Your task to perform on an android device: turn smart compose on in the gmail app Image 0: 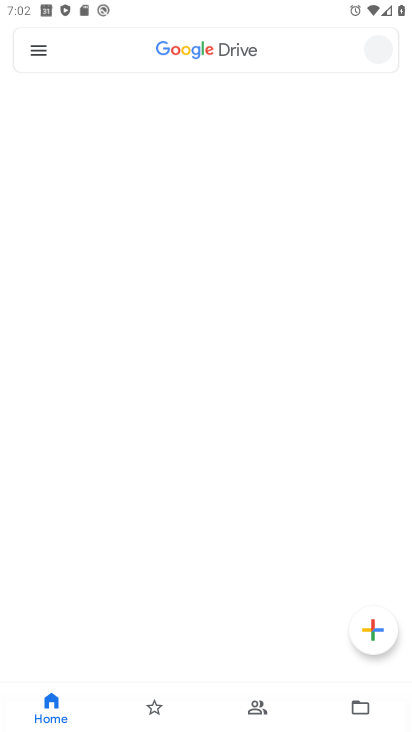
Step 0: drag from (315, 616) to (326, 58)
Your task to perform on an android device: turn smart compose on in the gmail app Image 1: 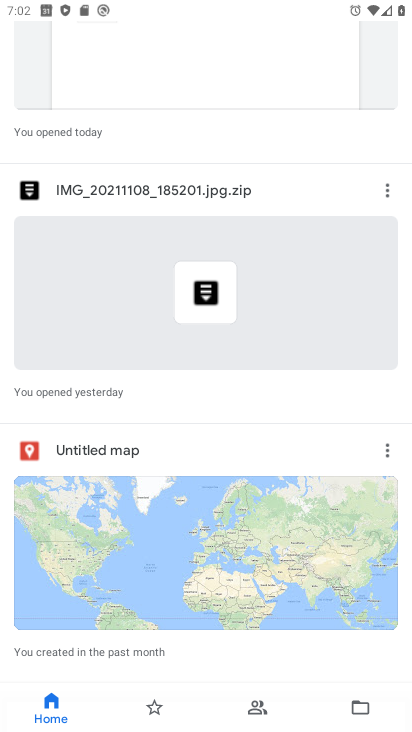
Step 1: press home button
Your task to perform on an android device: turn smart compose on in the gmail app Image 2: 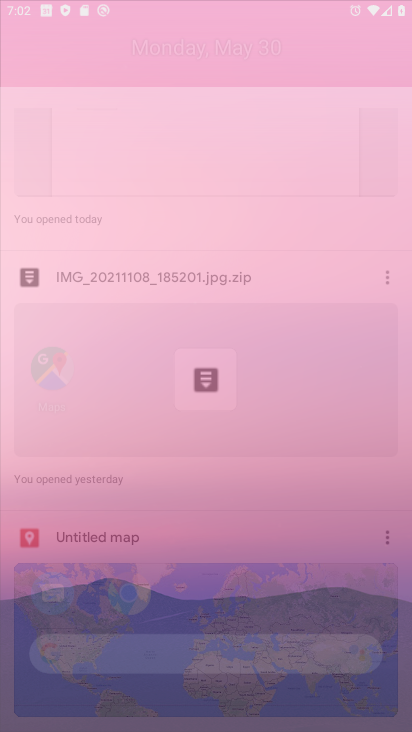
Step 2: drag from (322, 632) to (220, 2)
Your task to perform on an android device: turn smart compose on in the gmail app Image 3: 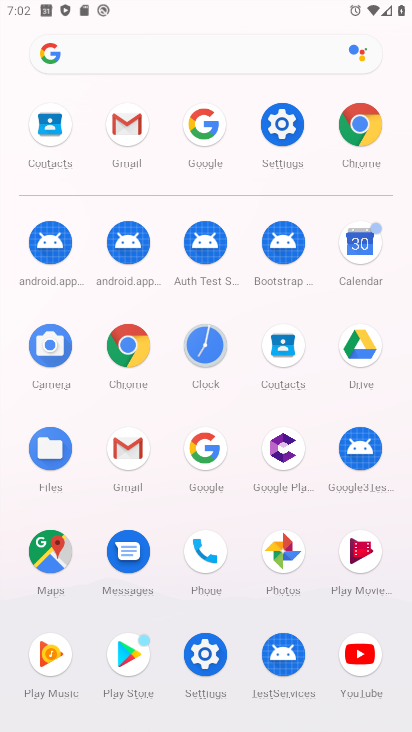
Step 3: click (128, 448)
Your task to perform on an android device: turn smart compose on in the gmail app Image 4: 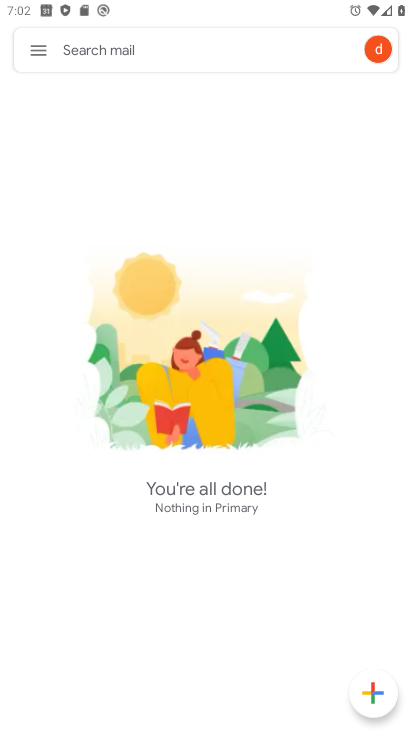
Step 4: click (46, 44)
Your task to perform on an android device: turn smart compose on in the gmail app Image 5: 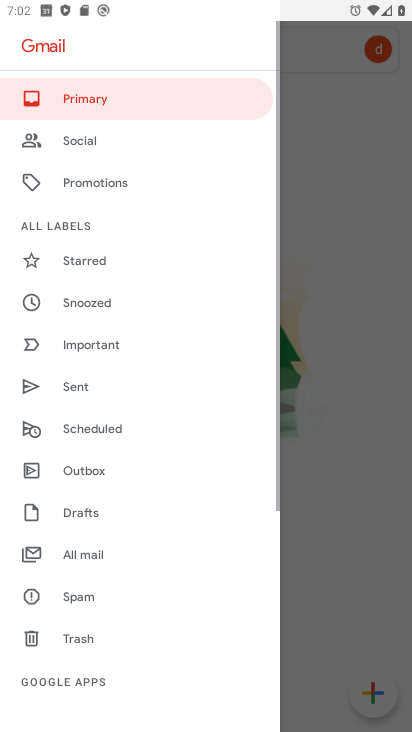
Step 5: drag from (83, 662) to (116, 53)
Your task to perform on an android device: turn smart compose on in the gmail app Image 6: 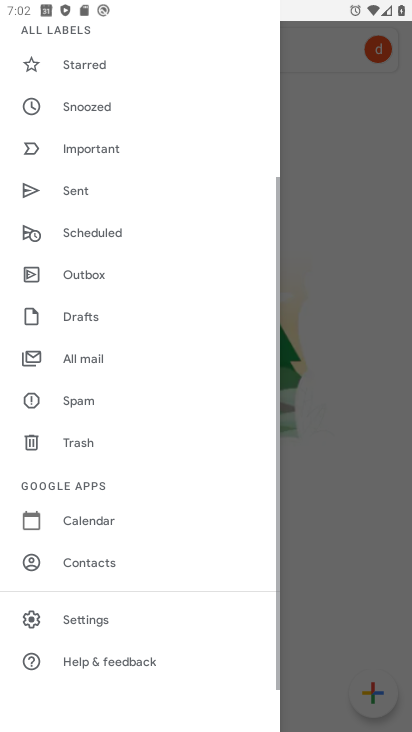
Step 6: click (154, 612)
Your task to perform on an android device: turn smart compose on in the gmail app Image 7: 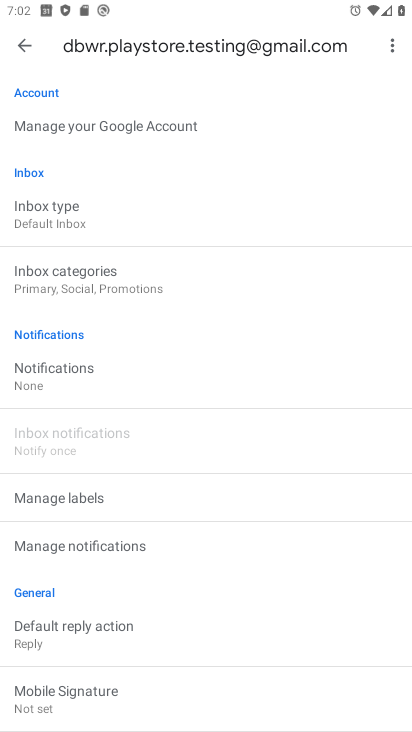
Step 7: task complete